Your task to perform on an android device: What's on my calendar tomorrow? Image 0: 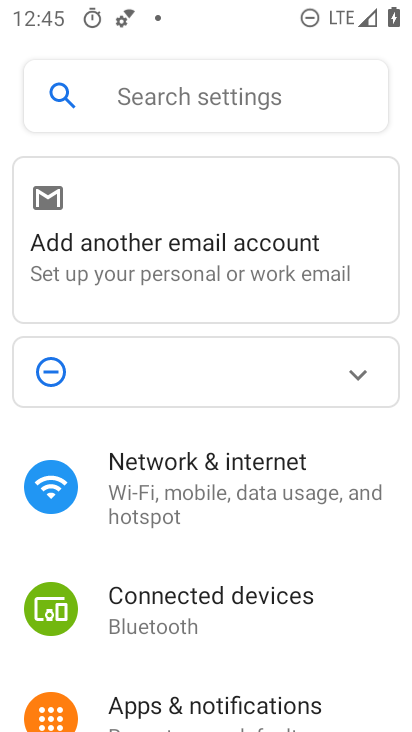
Step 0: press back button
Your task to perform on an android device: What's on my calendar tomorrow? Image 1: 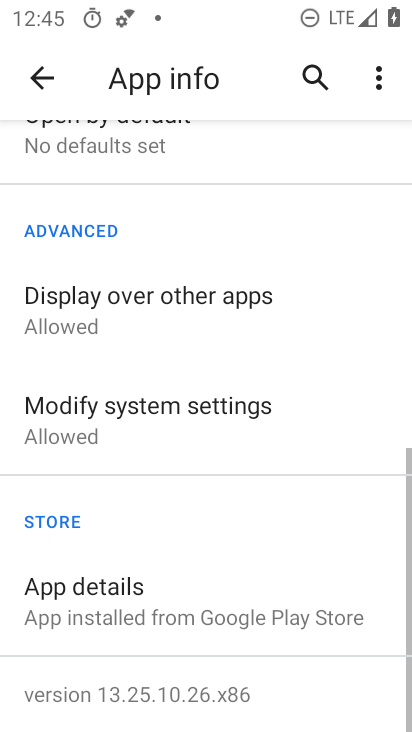
Step 1: press back button
Your task to perform on an android device: What's on my calendar tomorrow? Image 2: 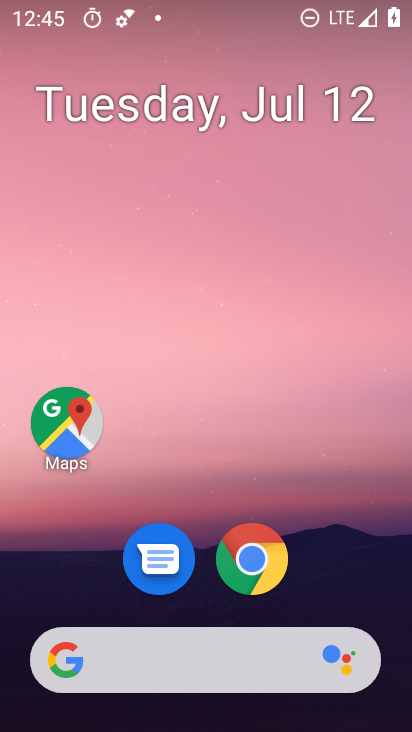
Step 2: drag from (181, 627) to (361, 27)
Your task to perform on an android device: What's on my calendar tomorrow? Image 3: 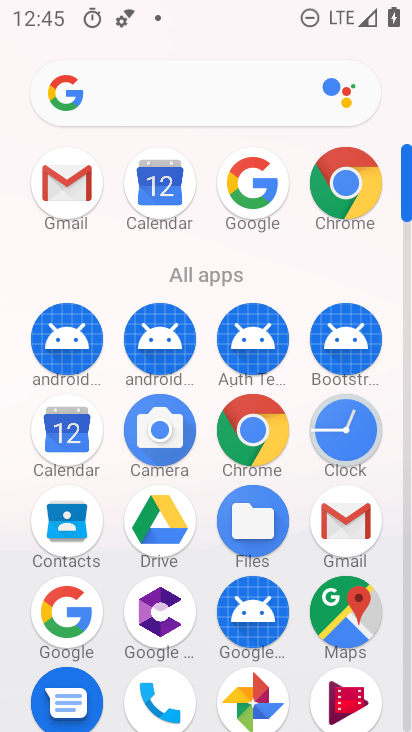
Step 3: click (168, 193)
Your task to perform on an android device: What's on my calendar tomorrow? Image 4: 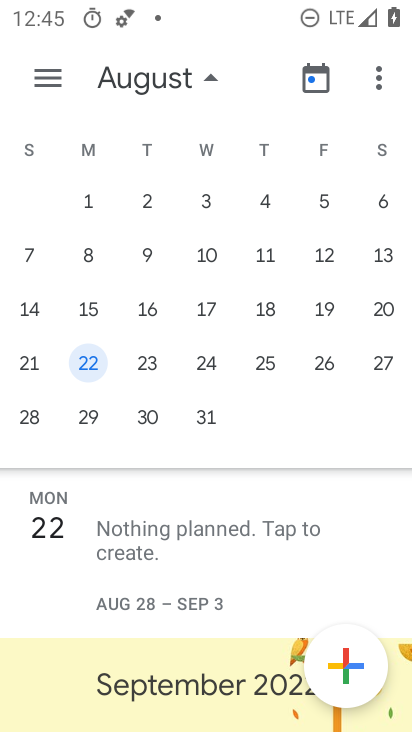
Step 4: drag from (174, 7) to (276, 91)
Your task to perform on an android device: What's on my calendar tomorrow? Image 5: 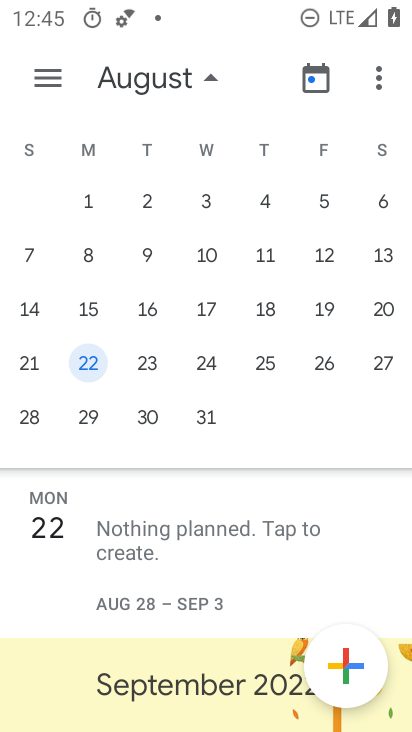
Step 5: drag from (34, 252) to (349, 275)
Your task to perform on an android device: What's on my calendar tomorrow? Image 6: 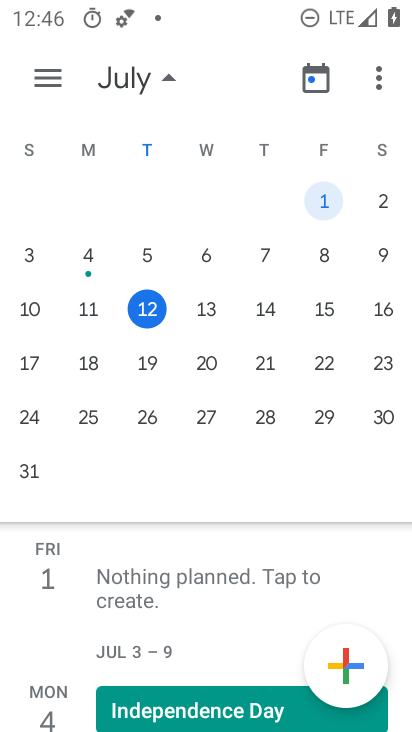
Step 6: click (206, 306)
Your task to perform on an android device: What's on my calendar tomorrow? Image 7: 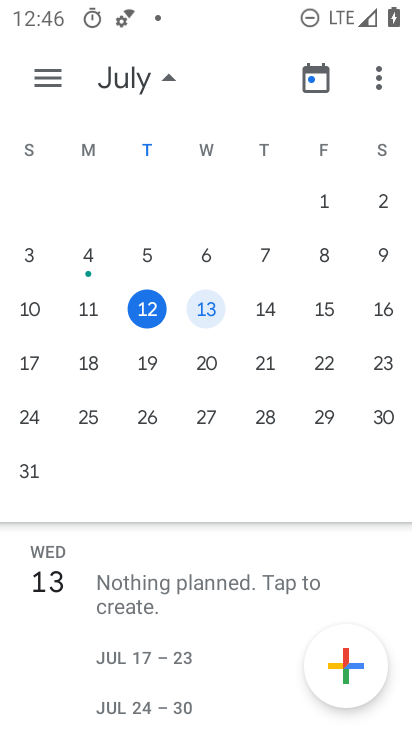
Step 7: task complete